Your task to perform on an android device: Search for Italian restaurants on Maps Image 0: 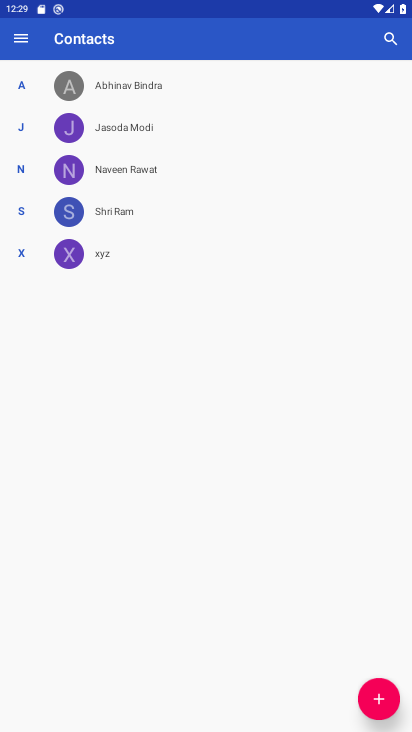
Step 0: press home button
Your task to perform on an android device: Search for Italian restaurants on Maps Image 1: 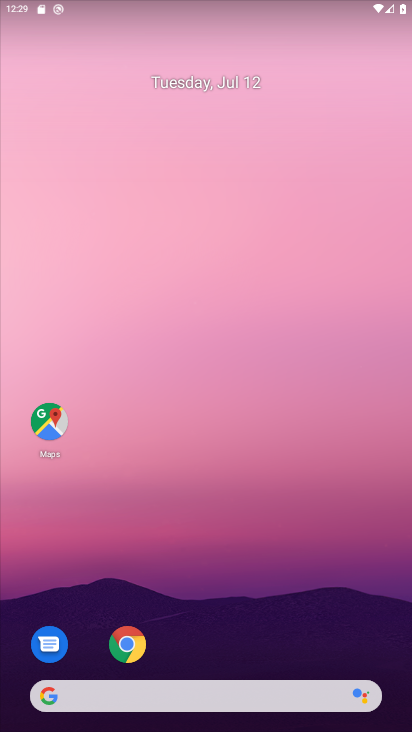
Step 1: drag from (218, 496) to (304, 0)
Your task to perform on an android device: Search for Italian restaurants on Maps Image 2: 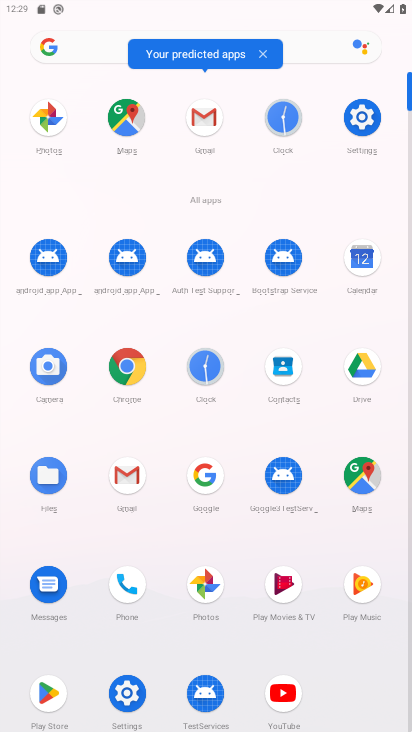
Step 2: click (354, 477)
Your task to perform on an android device: Search for Italian restaurants on Maps Image 3: 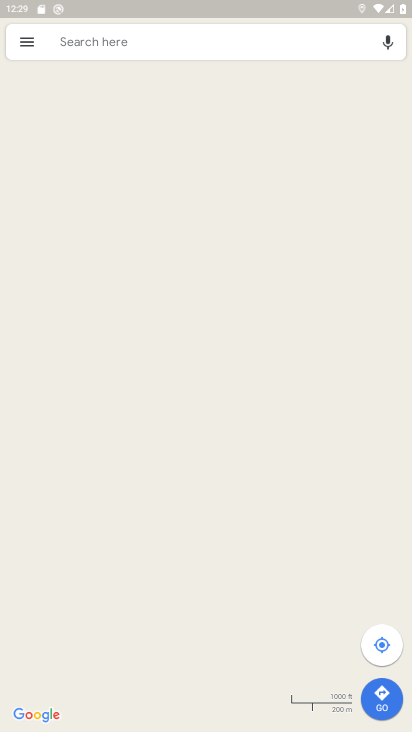
Step 3: click (119, 48)
Your task to perform on an android device: Search for Italian restaurants on Maps Image 4: 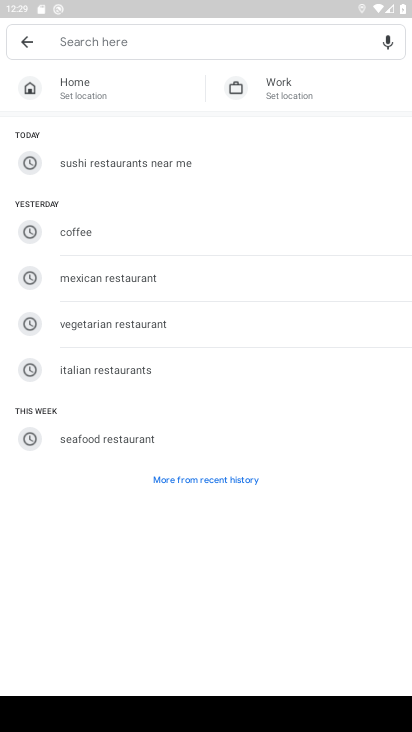
Step 4: type "Italian restaurants"
Your task to perform on an android device: Search for Italian restaurants on Maps Image 5: 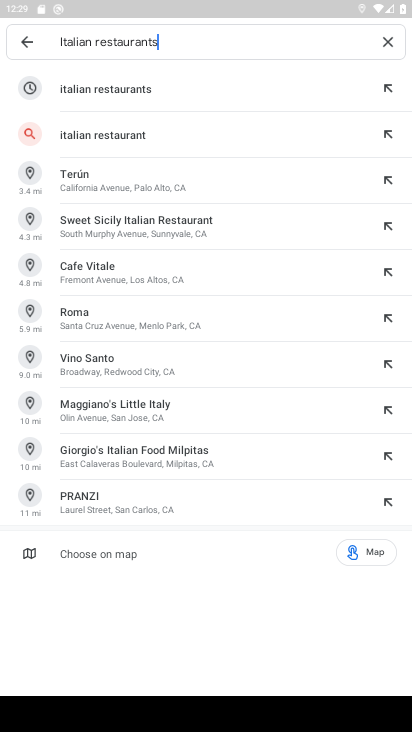
Step 5: click (169, 85)
Your task to perform on an android device: Search for Italian restaurants on Maps Image 6: 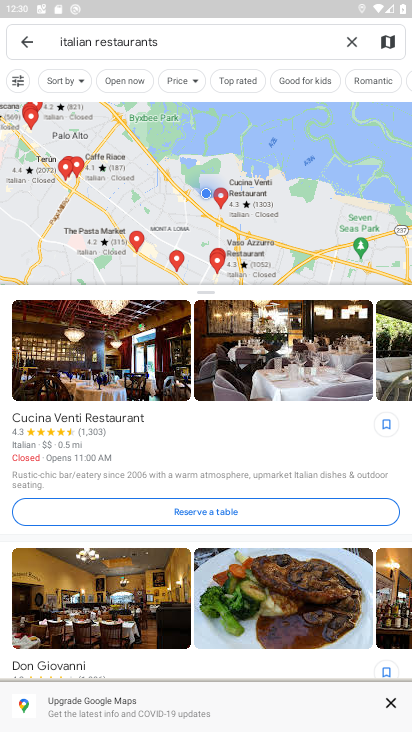
Step 6: task complete